Your task to perform on an android device: Open calendar and show me the first week of next month Image 0: 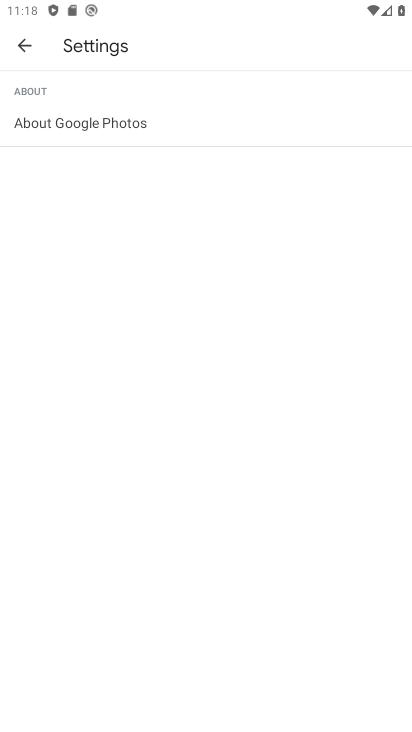
Step 0: press home button
Your task to perform on an android device: Open calendar and show me the first week of next month Image 1: 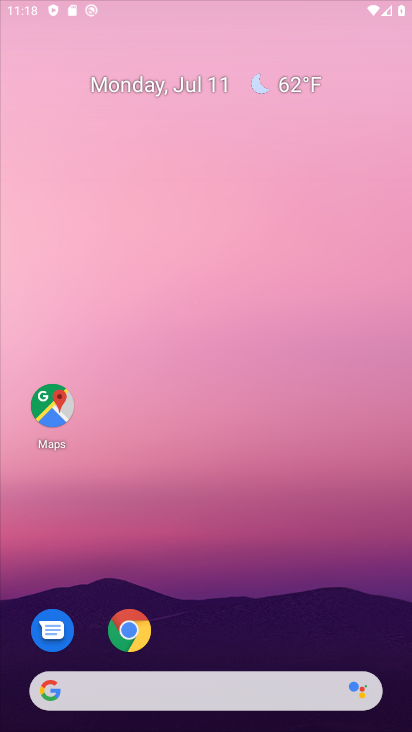
Step 1: drag from (262, 706) to (344, 30)
Your task to perform on an android device: Open calendar and show me the first week of next month Image 2: 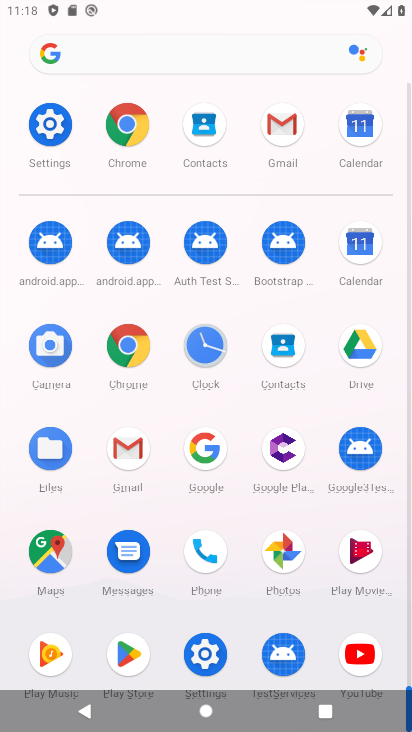
Step 2: click (358, 250)
Your task to perform on an android device: Open calendar and show me the first week of next month Image 3: 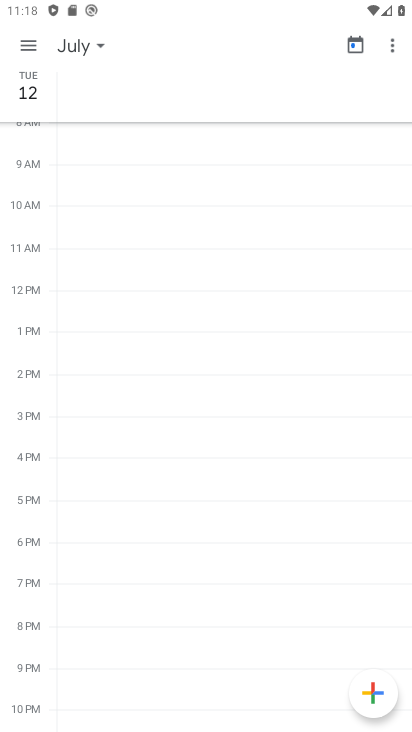
Step 3: click (93, 41)
Your task to perform on an android device: Open calendar and show me the first week of next month Image 4: 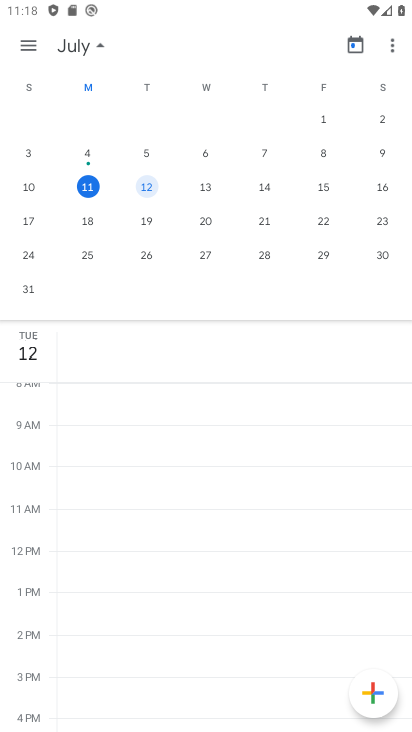
Step 4: drag from (344, 237) to (6, 239)
Your task to perform on an android device: Open calendar and show me the first week of next month Image 5: 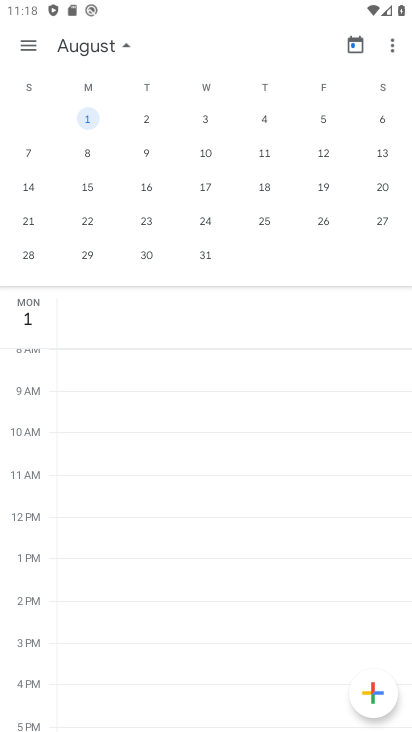
Step 5: click (263, 117)
Your task to perform on an android device: Open calendar and show me the first week of next month Image 6: 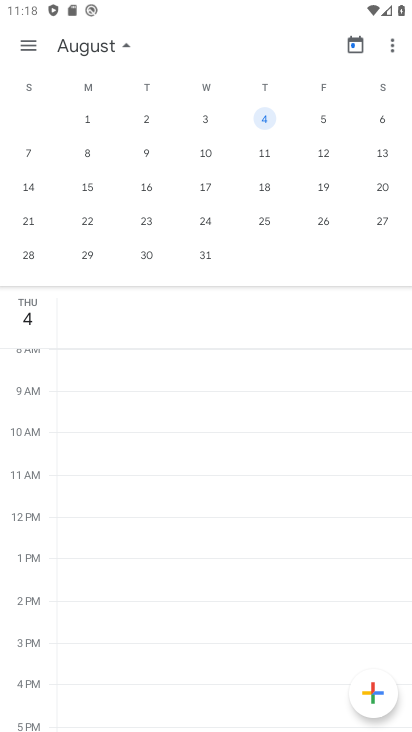
Step 6: click (22, 43)
Your task to perform on an android device: Open calendar and show me the first week of next month Image 7: 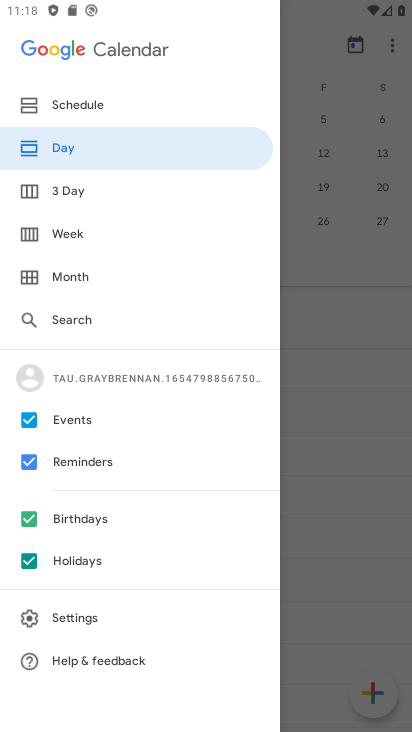
Step 7: click (72, 238)
Your task to perform on an android device: Open calendar and show me the first week of next month Image 8: 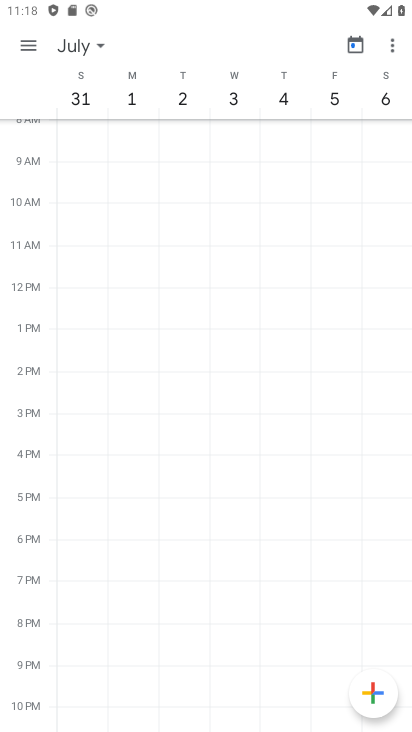
Step 8: task complete